Your task to perform on an android device: change your default location settings in chrome Image 0: 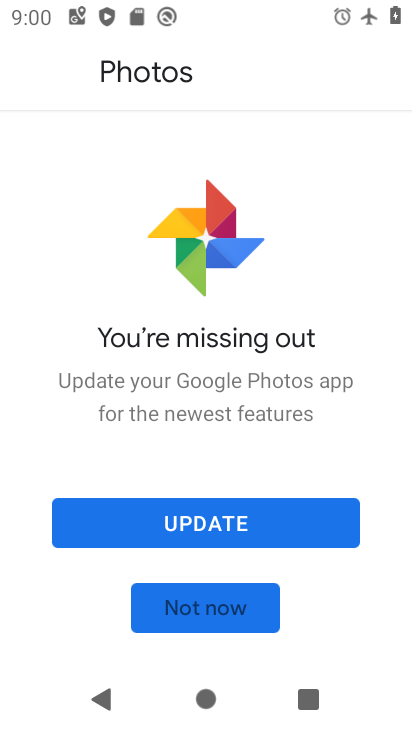
Step 0: press home button
Your task to perform on an android device: change your default location settings in chrome Image 1: 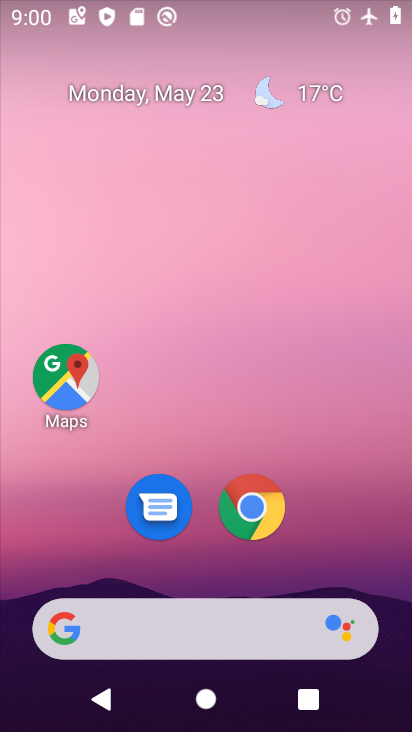
Step 1: click (255, 511)
Your task to perform on an android device: change your default location settings in chrome Image 2: 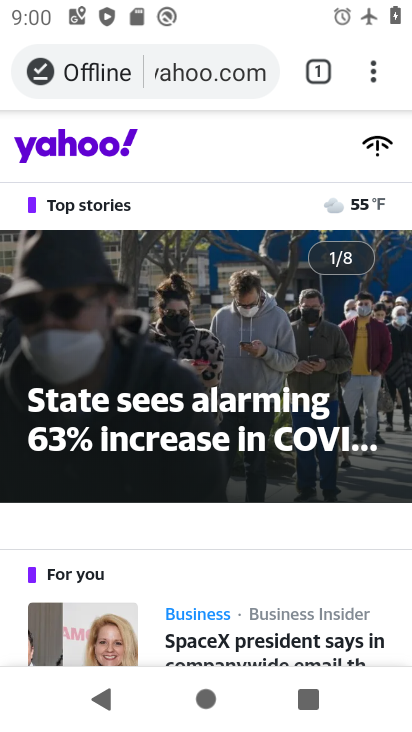
Step 2: click (376, 72)
Your task to perform on an android device: change your default location settings in chrome Image 3: 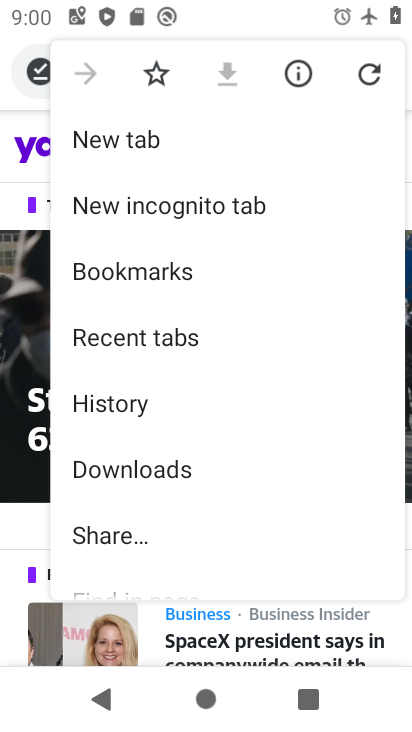
Step 3: drag from (237, 511) to (291, 9)
Your task to perform on an android device: change your default location settings in chrome Image 4: 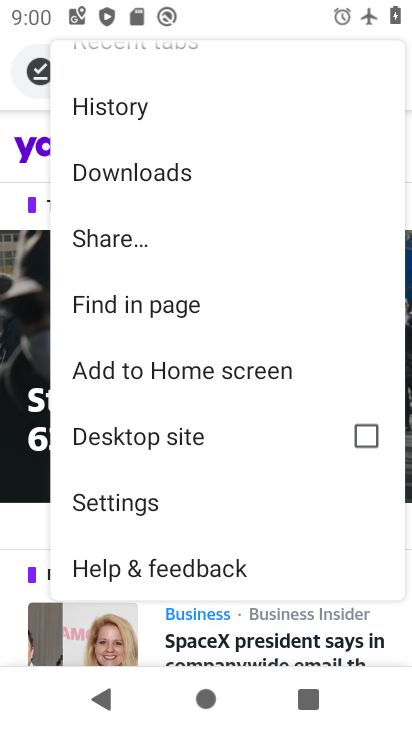
Step 4: click (104, 496)
Your task to perform on an android device: change your default location settings in chrome Image 5: 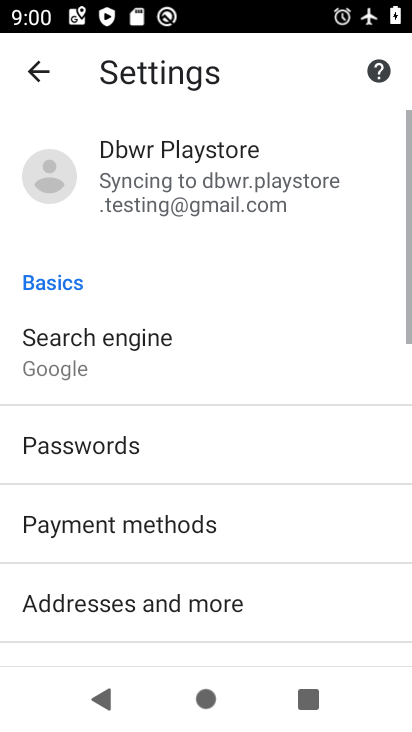
Step 5: drag from (168, 516) to (190, 96)
Your task to perform on an android device: change your default location settings in chrome Image 6: 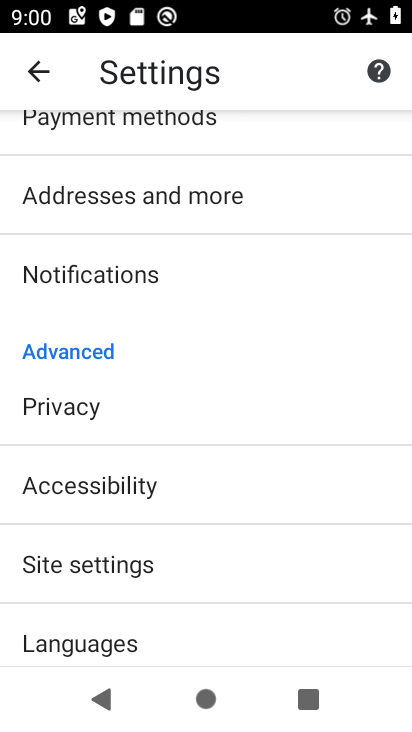
Step 6: click (99, 571)
Your task to perform on an android device: change your default location settings in chrome Image 7: 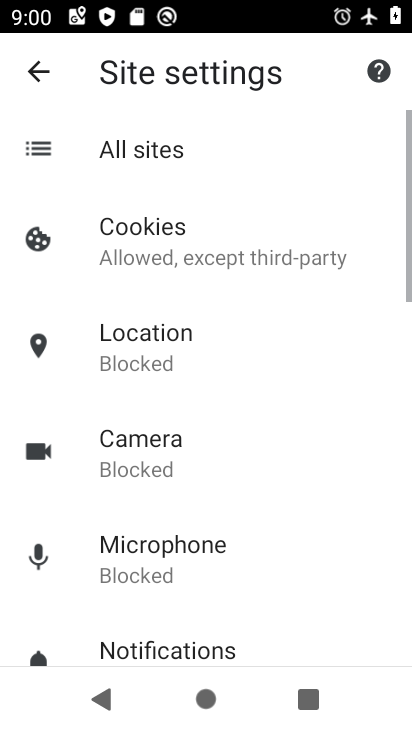
Step 7: click (142, 351)
Your task to perform on an android device: change your default location settings in chrome Image 8: 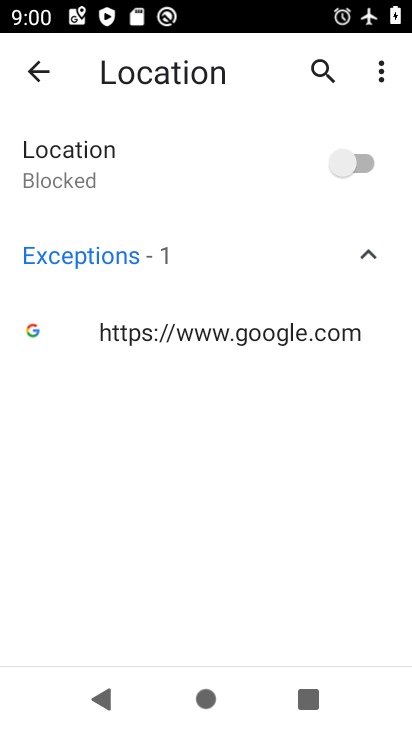
Step 8: click (340, 176)
Your task to perform on an android device: change your default location settings in chrome Image 9: 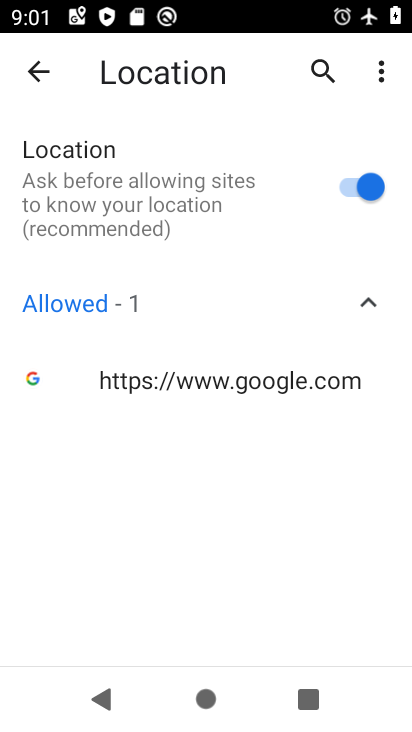
Step 9: task complete